Your task to perform on an android device: Open Google Image 0: 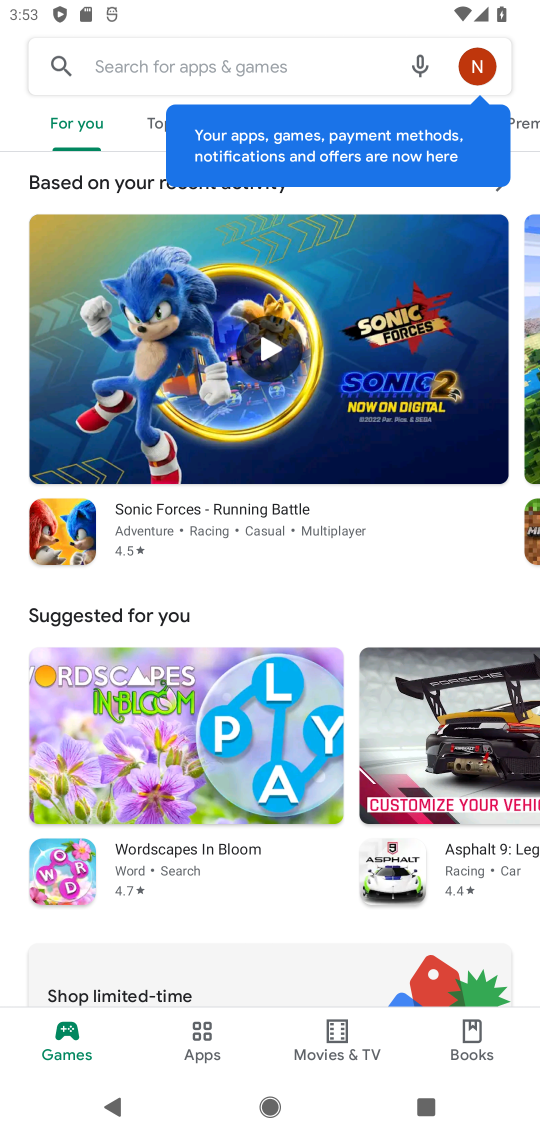
Step 0: press home button
Your task to perform on an android device: Open Google Image 1: 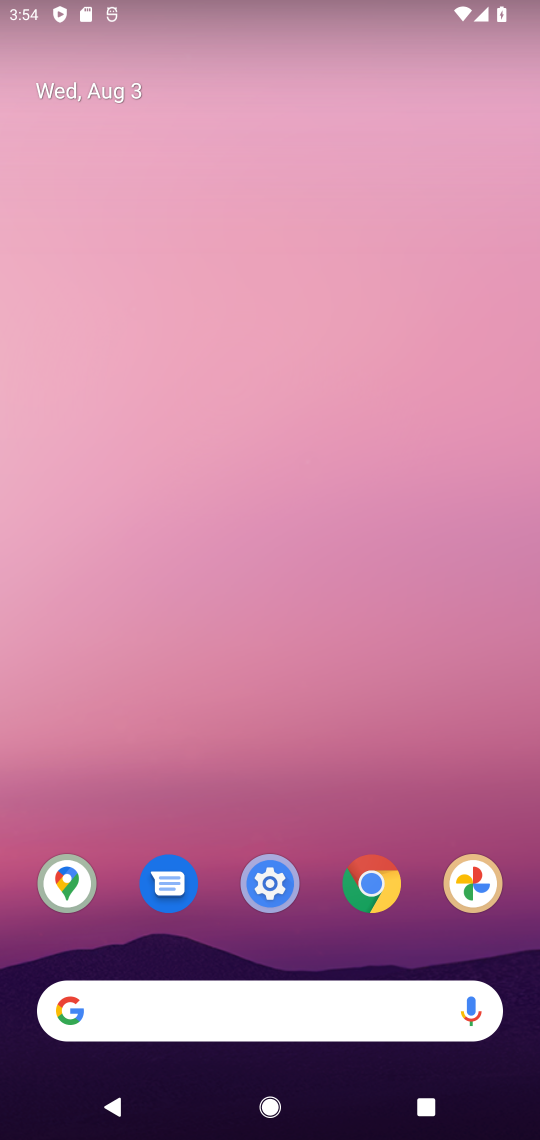
Step 1: click (196, 997)
Your task to perform on an android device: Open Google Image 2: 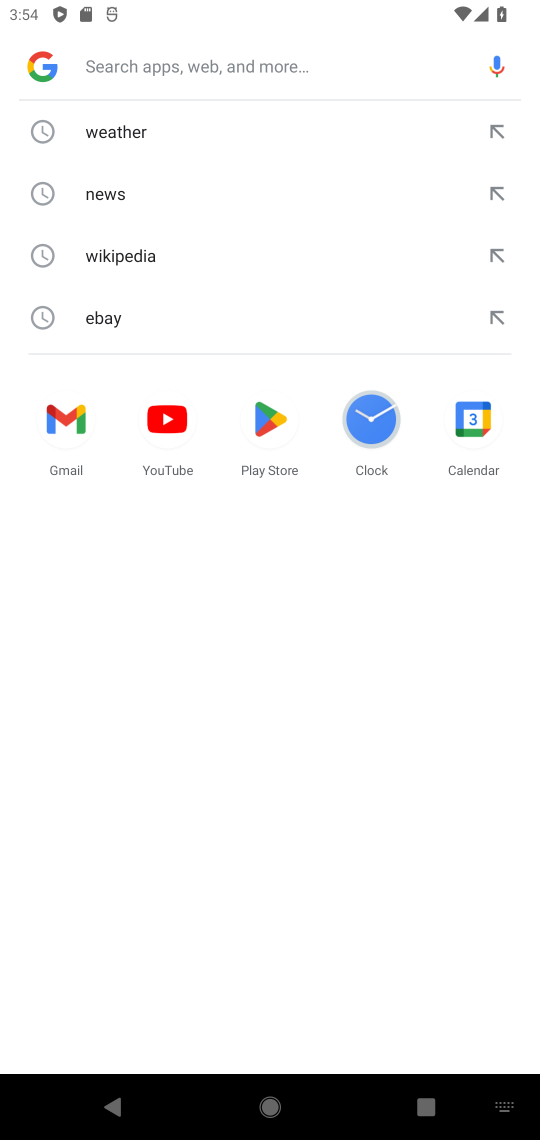
Step 2: click (47, 68)
Your task to perform on an android device: Open Google Image 3: 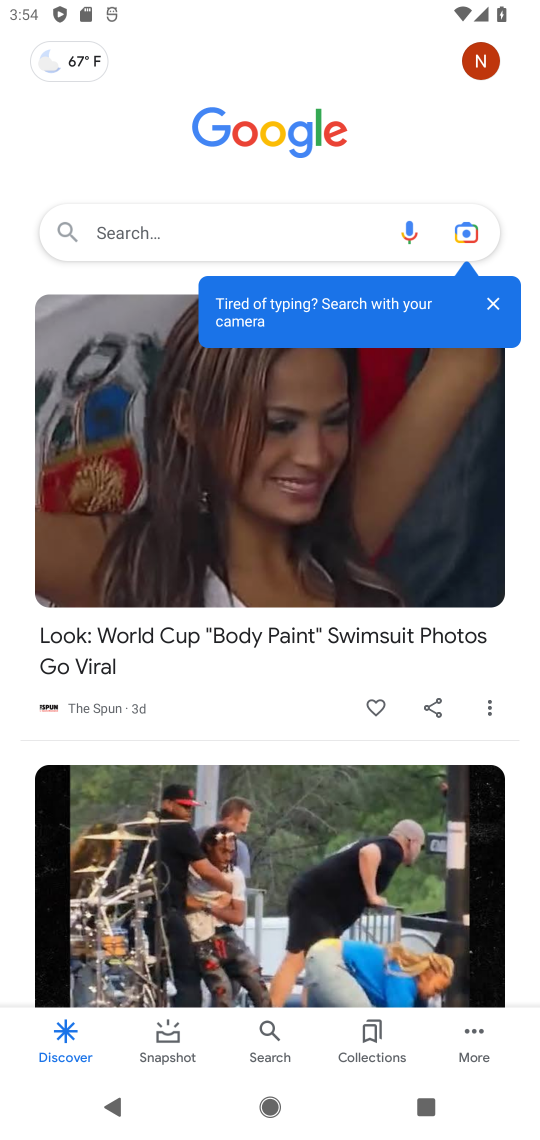
Step 3: task complete